Your task to perform on an android device: change alarm snooze length Image 0: 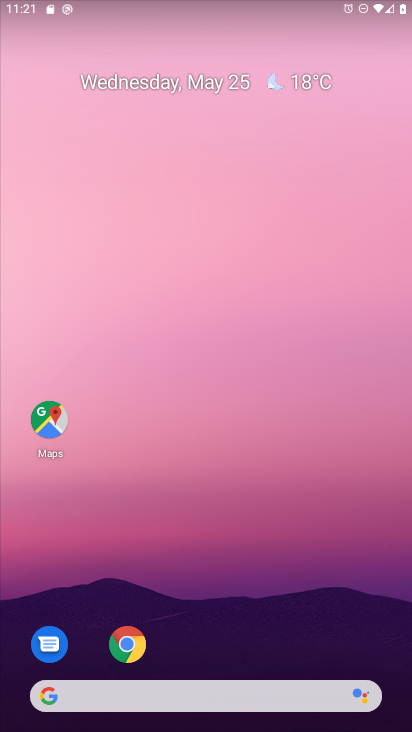
Step 0: press home button
Your task to perform on an android device: change alarm snooze length Image 1: 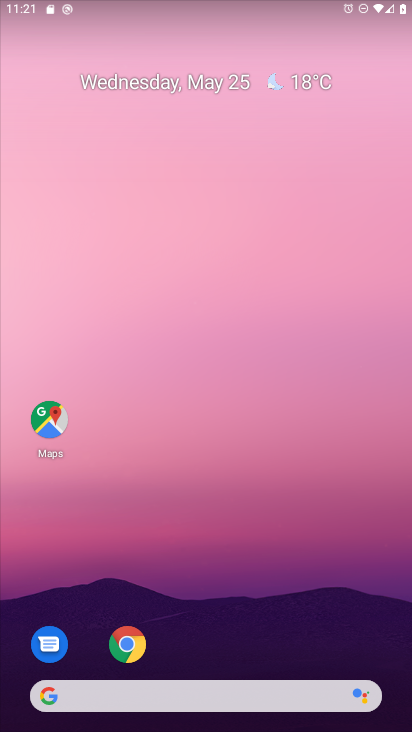
Step 1: drag from (213, 662) to (212, 51)
Your task to perform on an android device: change alarm snooze length Image 2: 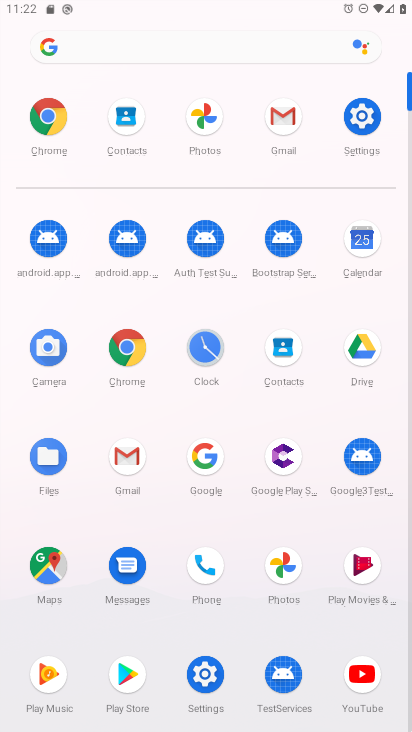
Step 2: click (206, 343)
Your task to perform on an android device: change alarm snooze length Image 3: 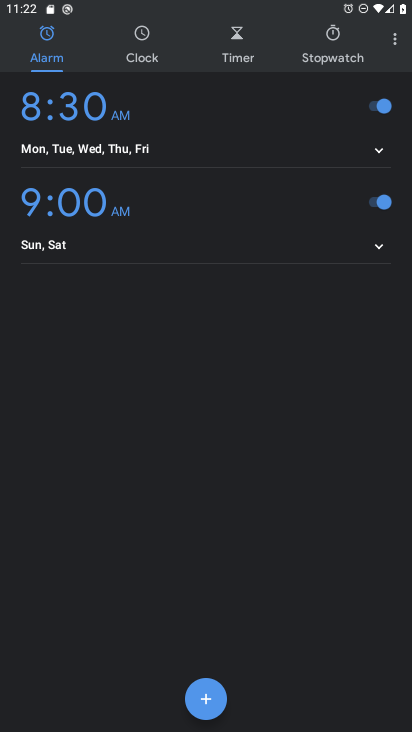
Step 3: click (391, 35)
Your task to perform on an android device: change alarm snooze length Image 4: 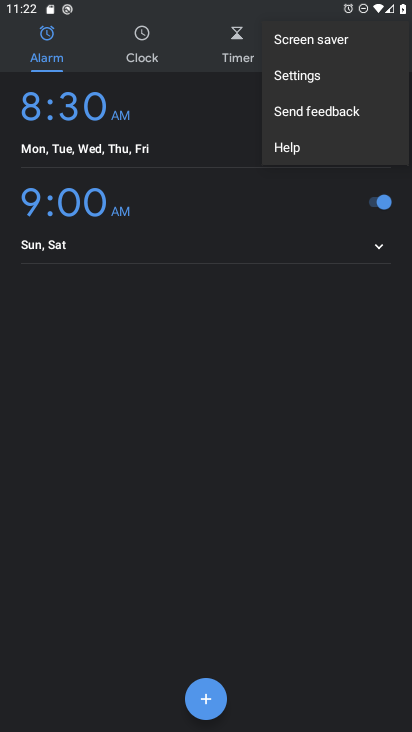
Step 4: click (329, 75)
Your task to perform on an android device: change alarm snooze length Image 5: 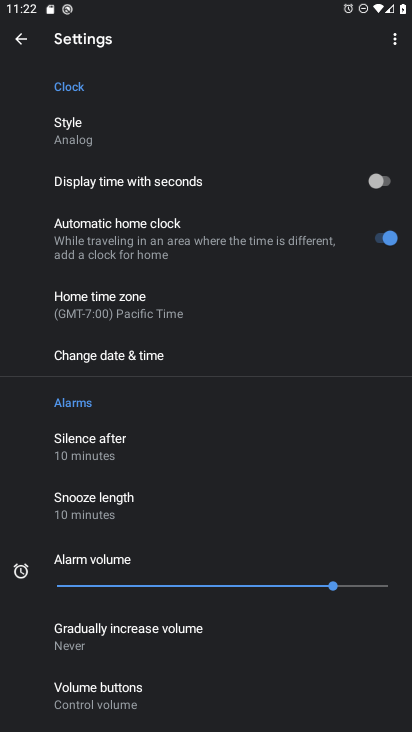
Step 5: click (143, 502)
Your task to perform on an android device: change alarm snooze length Image 6: 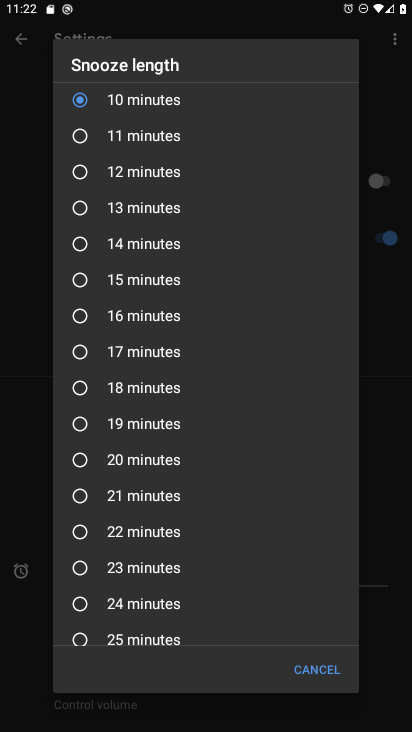
Step 6: drag from (120, 180) to (133, 511)
Your task to perform on an android device: change alarm snooze length Image 7: 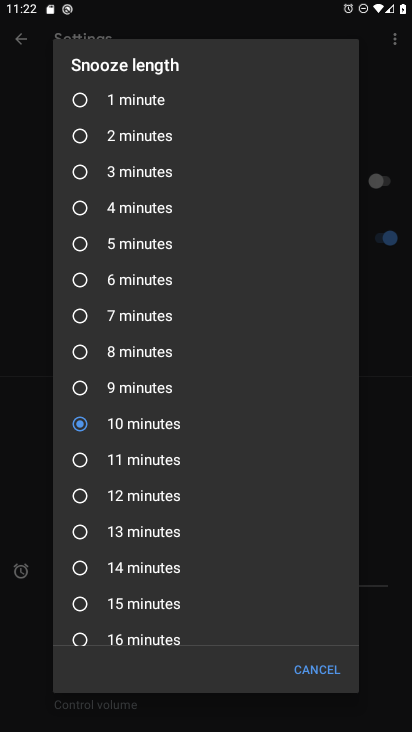
Step 7: click (80, 247)
Your task to perform on an android device: change alarm snooze length Image 8: 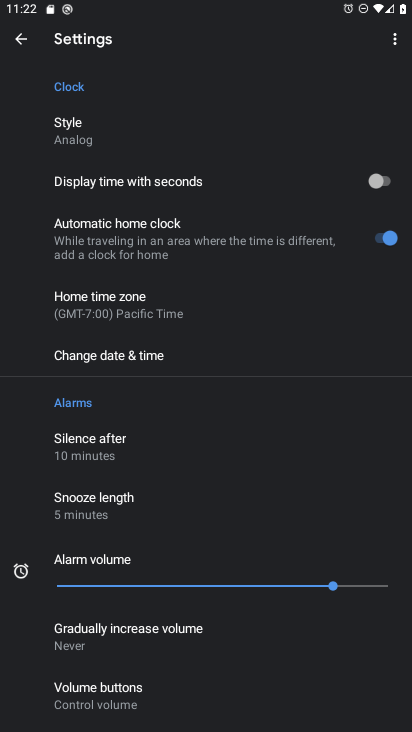
Step 8: task complete